Your task to perform on an android device: Add "logitech g903" to the cart on costco.com, then select checkout. Image 0: 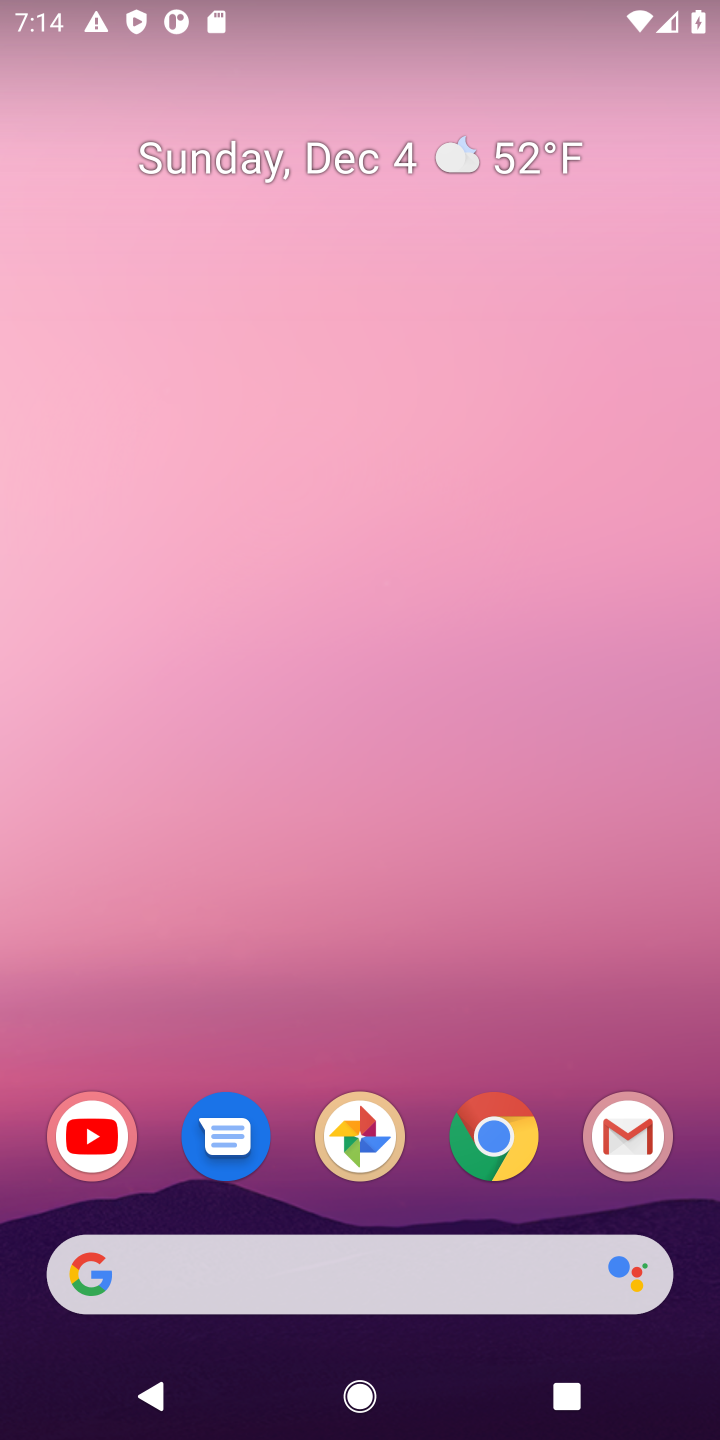
Step 0: click (508, 1124)
Your task to perform on an android device: Add "logitech g903" to the cart on costco.com, then select checkout. Image 1: 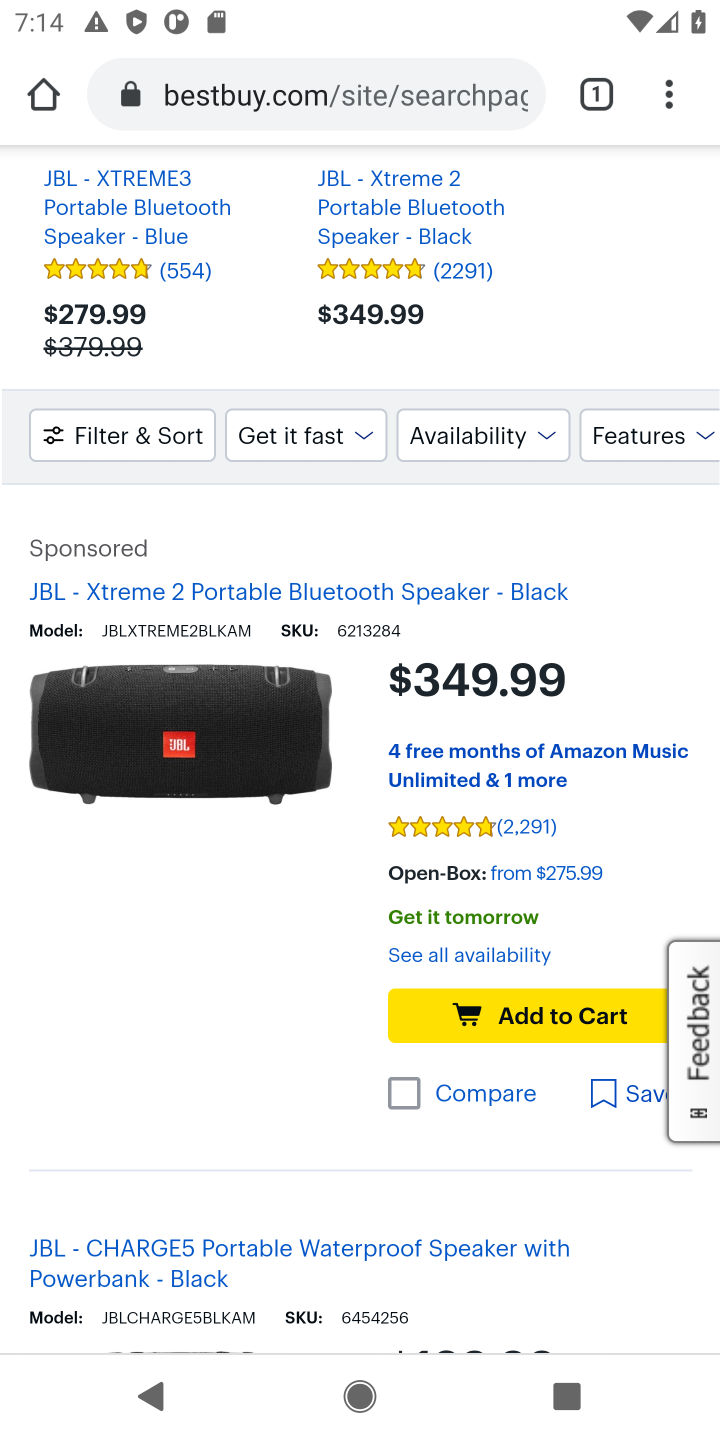
Step 1: click (288, 104)
Your task to perform on an android device: Add "logitech g903" to the cart on costco.com, then select checkout. Image 2: 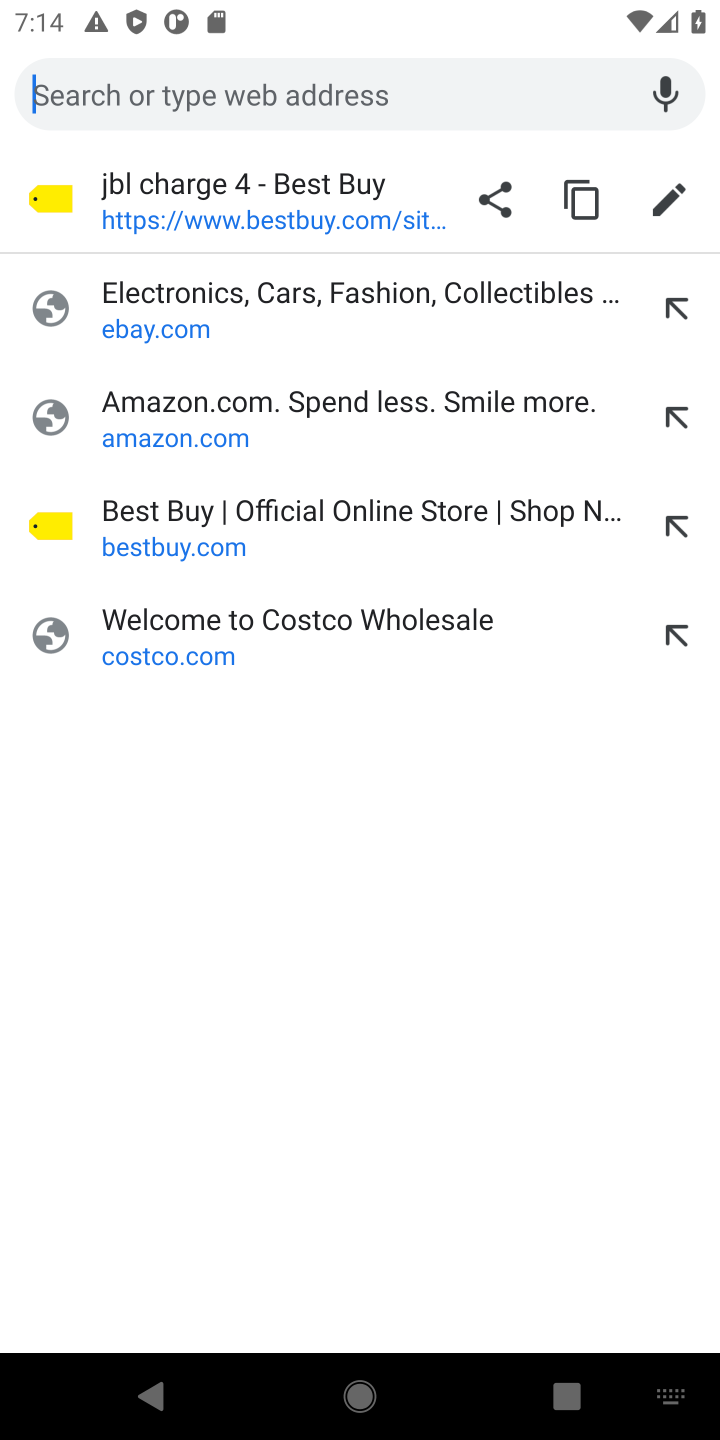
Step 2: click (162, 634)
Your task to perform on an android device: Add "logitech g903" to the cart on costco.com, then select checkout. Image 3: 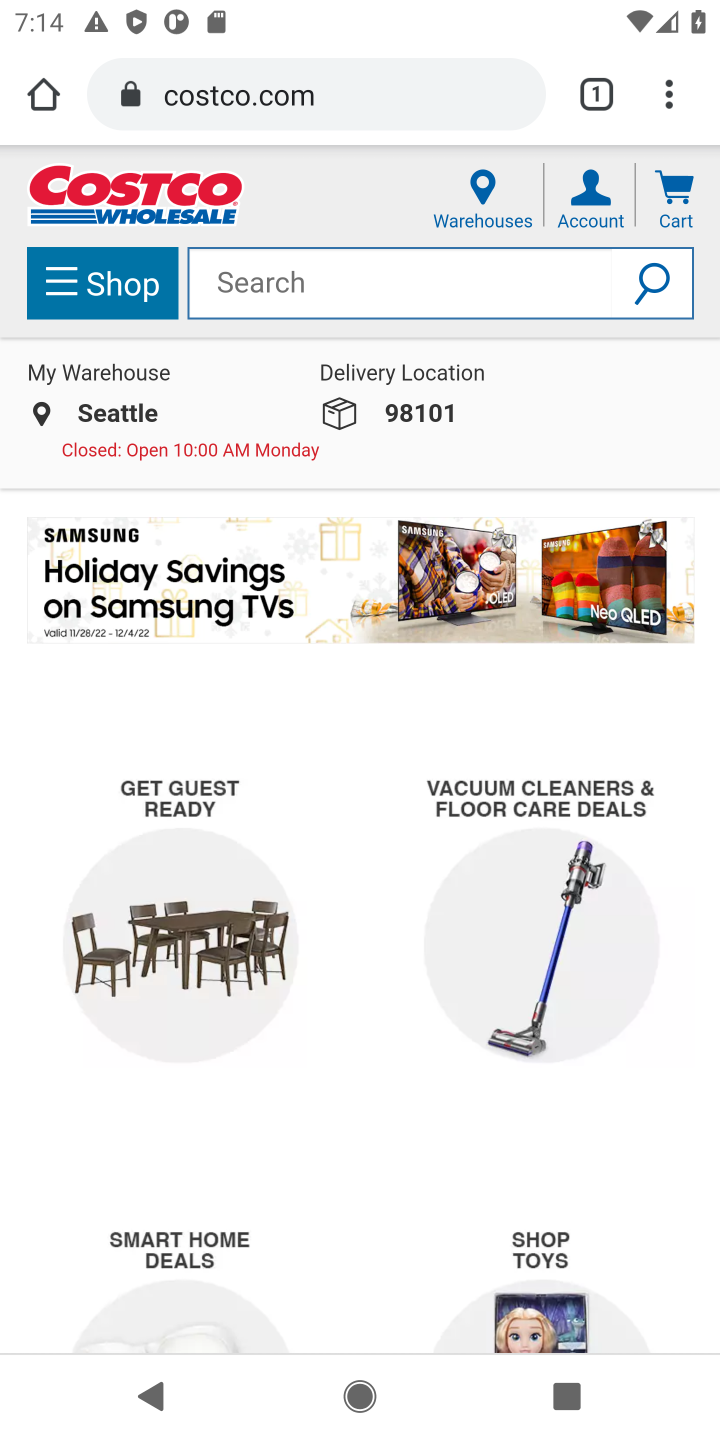
Step 3: click (238, 270)
Your task to perform on an android device: Add "logitech g903" to the cart on costco.com, then select checkout. Image 4: 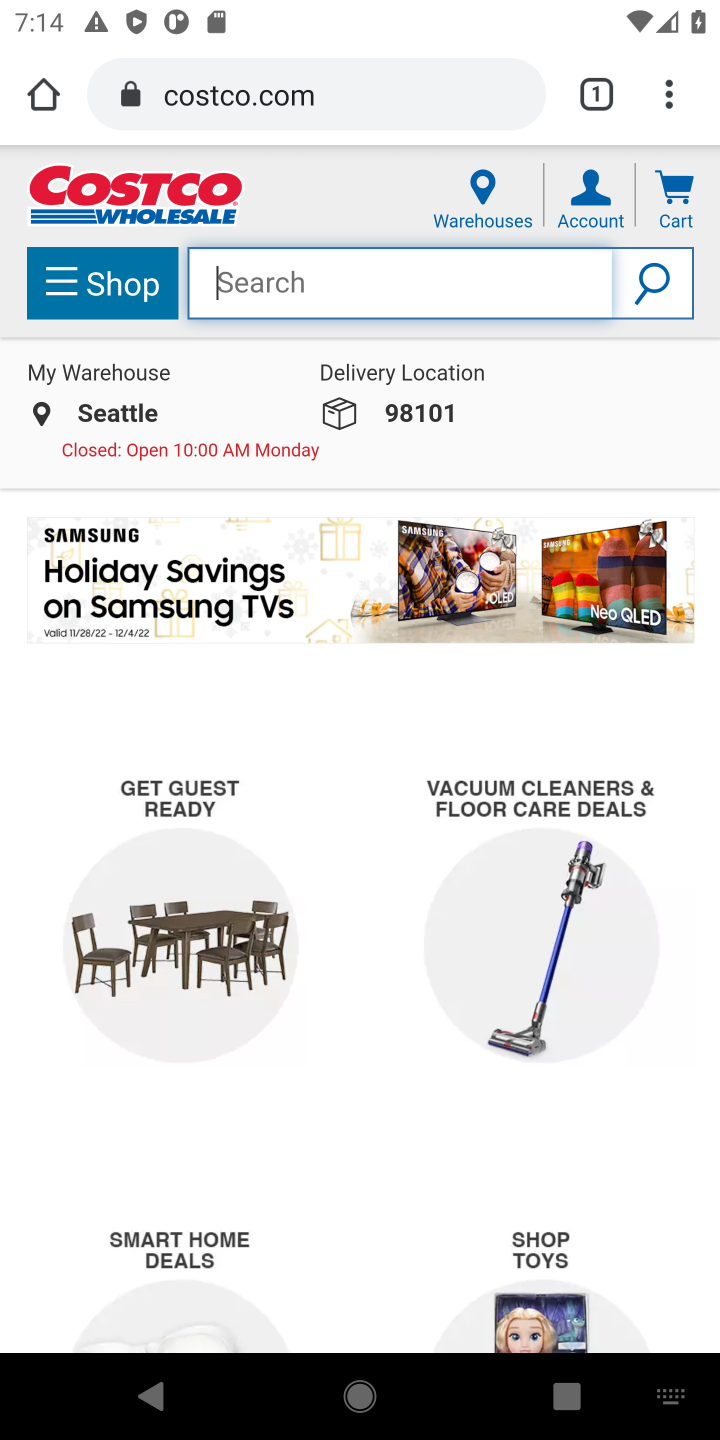
Step 4: type "logitech g903"
Your task to perform on an android device: Add "logitech g903" to the cart on costco.com, then select checkout. Image 5: 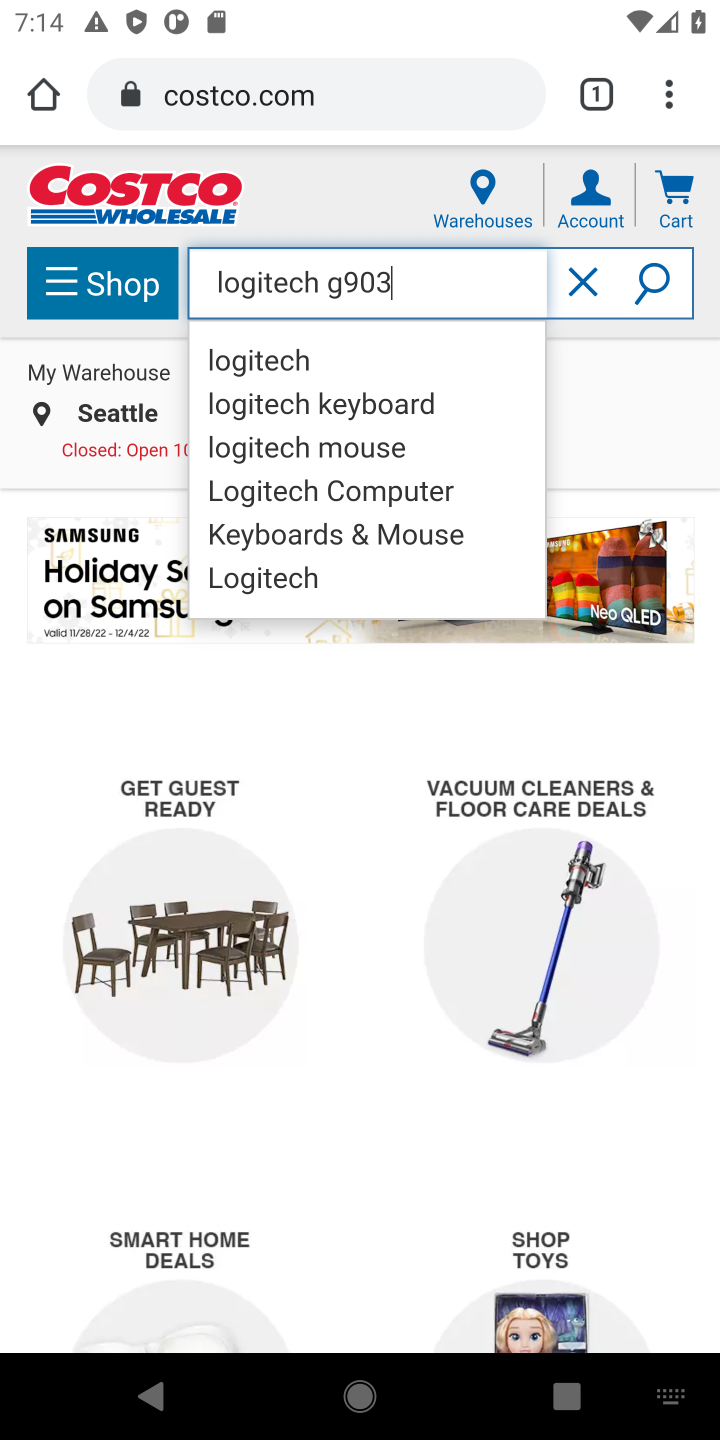
Step 5: click (648, 283)
Your task to perform on an android device: Add "logitech g903" to the cart on costco.com, then select checkout. Image 6: 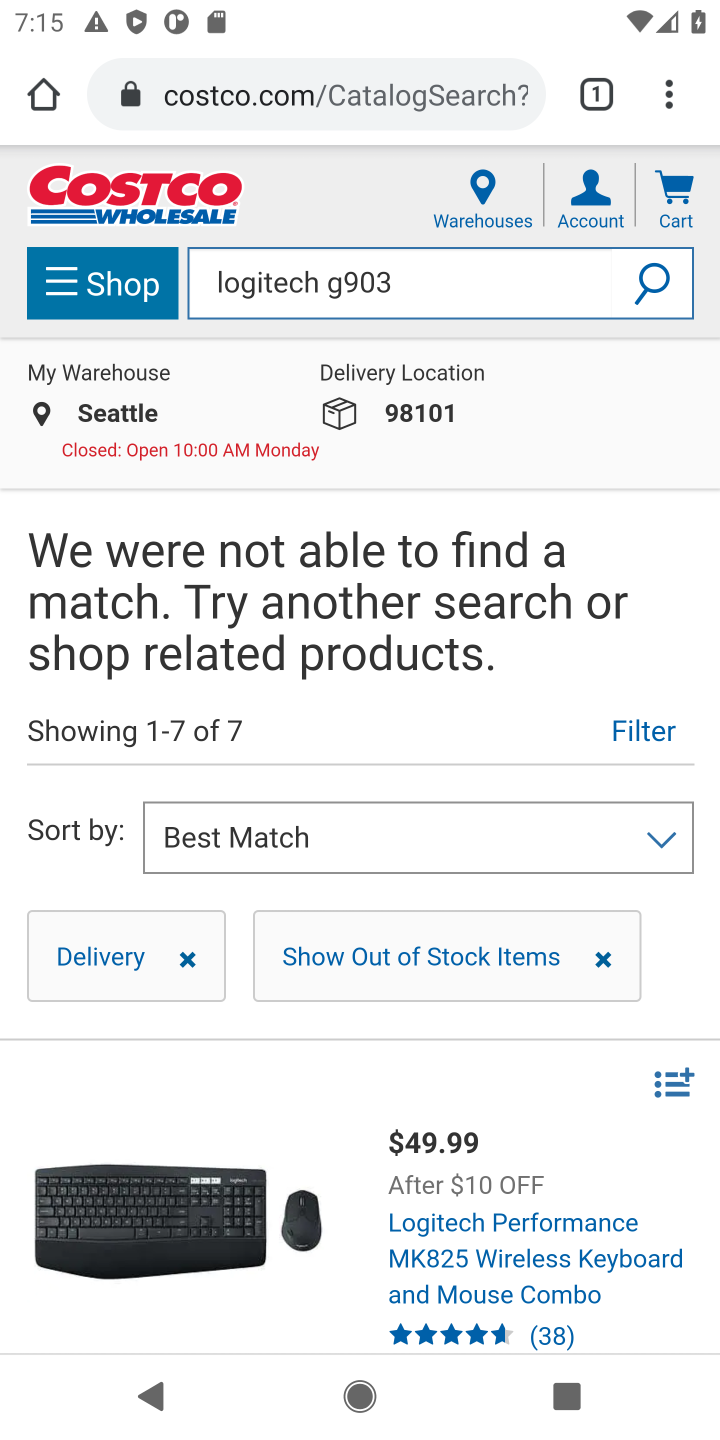
Step 6: task complete